Your task to perform on an android device: Find coffee shops on Maps Image 0: 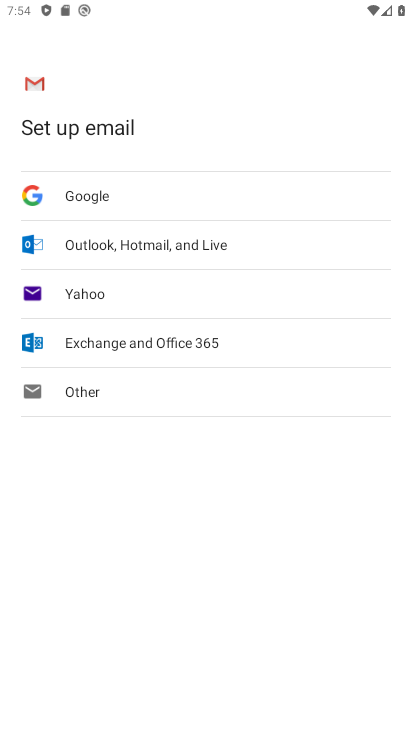
Step 0: press home button
Your task to perform on an android device: Find coffee shops on Maps Image 1: 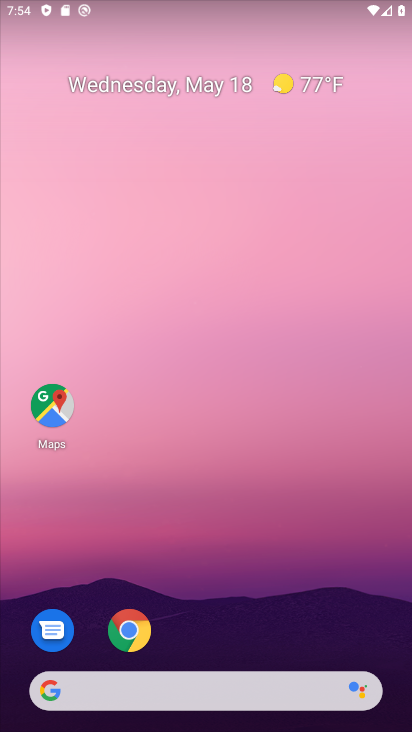
Step 1: click (58, 407)
Your task to perform on an android device: Find coffee shops on Maps Image 2: 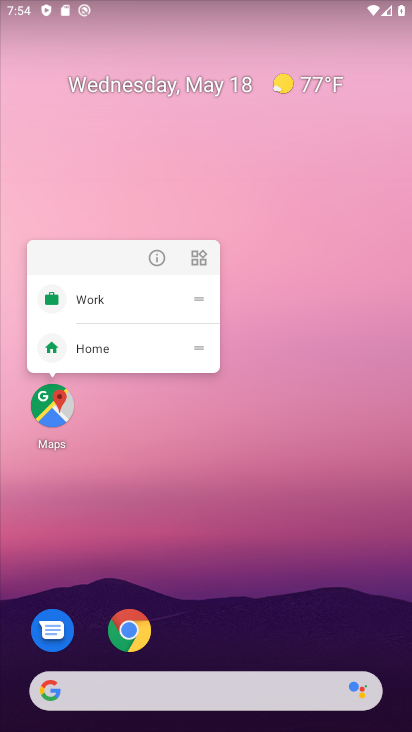
Step 2: click (44, 418)
Your task to perform on an android device: Find coffee shops on Maps Image 3: 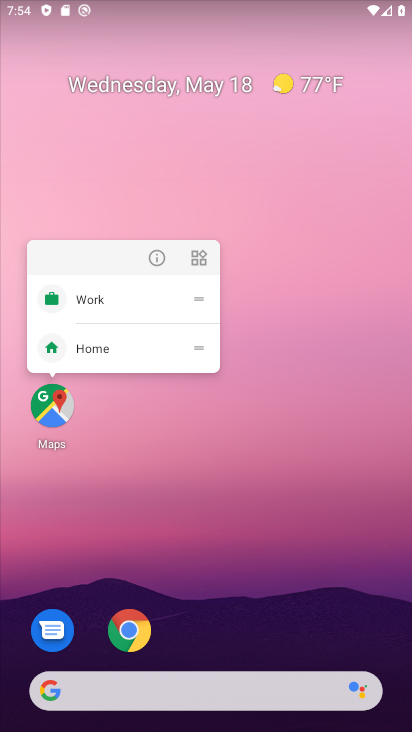
Step 3: click (44, 418)
Your task to perform on an android device: Find coffee shops on Maps Image 4: 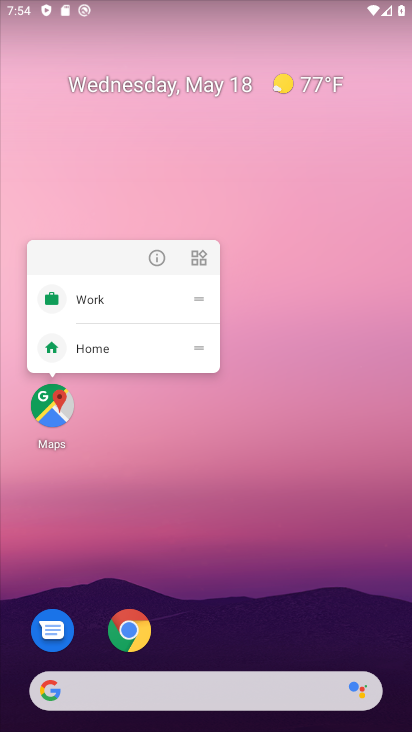
Step 4: click (205, 442)
Your task to perform on an android device: Find coffee shops on Maps Image 5: 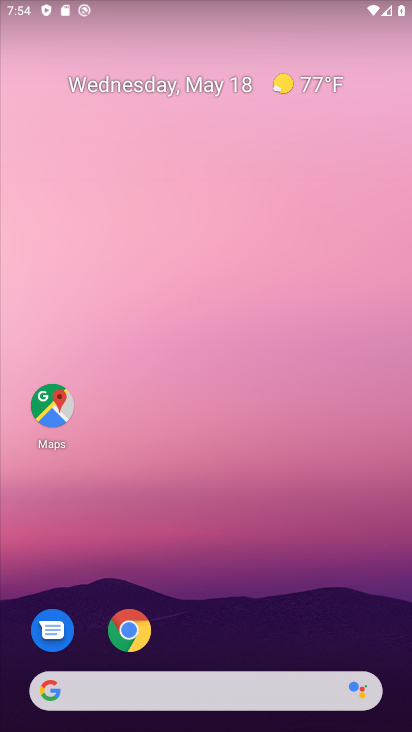
Step 5: click (49, 415)
Your task to perform on an android device: Find coffee shops on Maps Image 6: 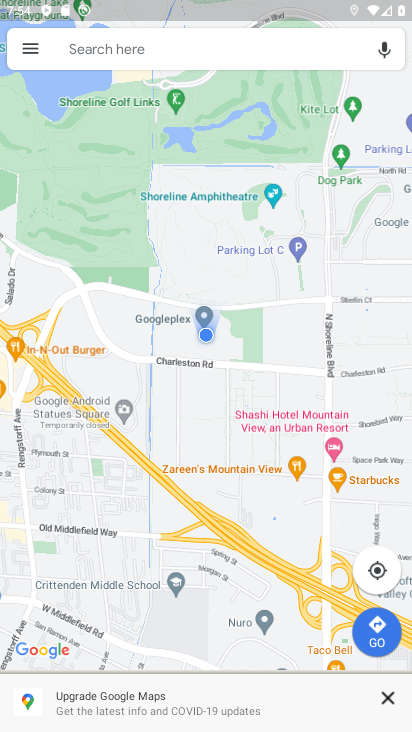
Step 6: click (173, 55)
Your task to perform on an android device: Find coffee shops on Maps Image 7: 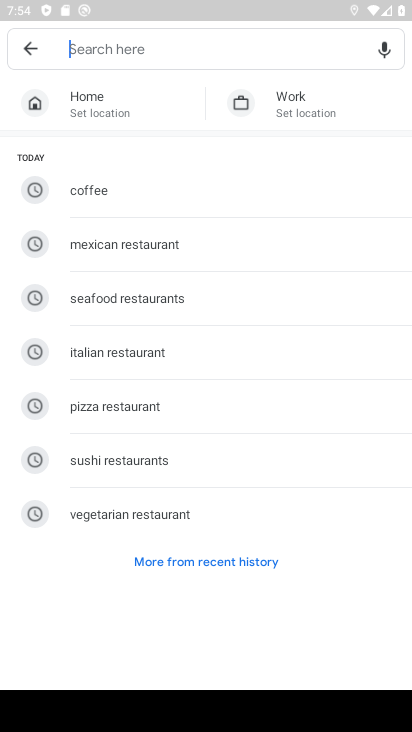
Step 7: click (93, 186)
Your task to perform on an android device: Find coffee shops on Maps Image 8: 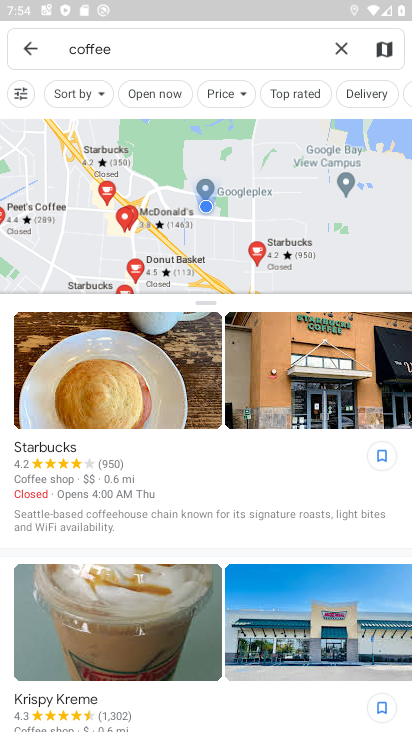
Step 8: task complete